Your task to perform on an android device: Open Chrome and go to settings Image 0: 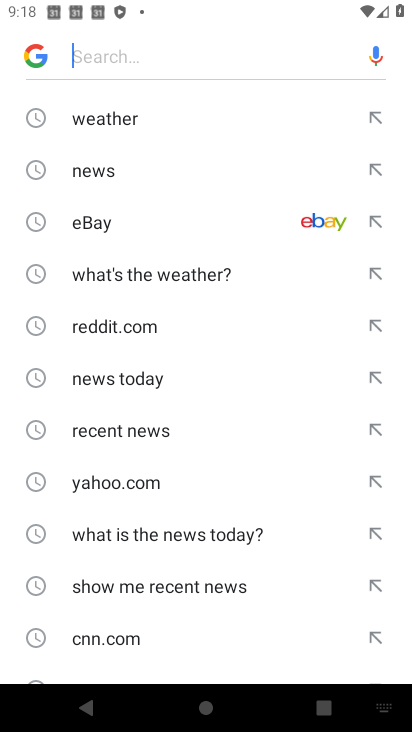
Step 0: press home button
Your task to perform on an android device: Open Chrome and go to settings Image 1: 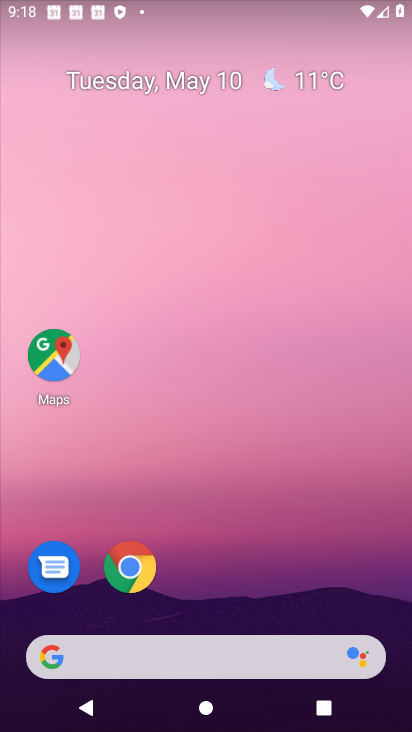
Step 1: click (138, 572)
Your task to perform on an android device: Open Chrome and go to settings Image 2: 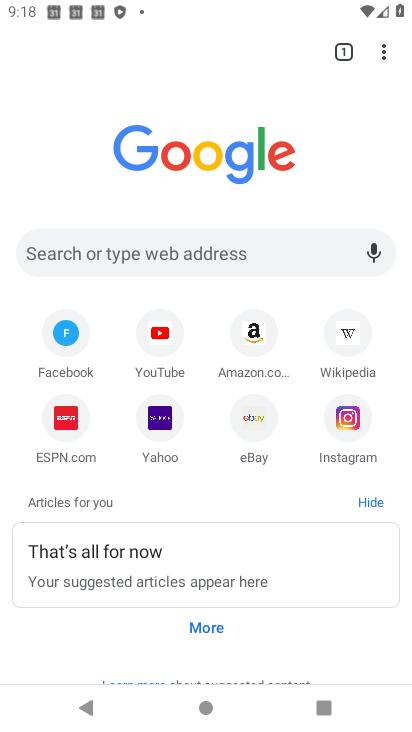
Step 2: click (382, 51)
Your task to perform on an android device: Open Chrome and go to settings Image 3: 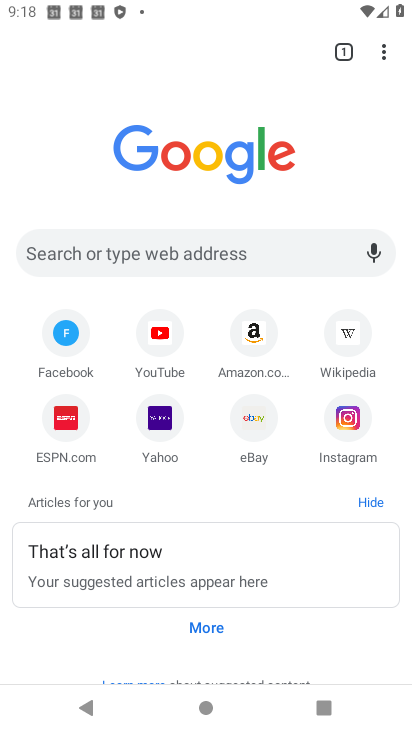
Step 3: click (381, 53)
Your task to perform on an android device: Open Chrome and go to settings Image 4: 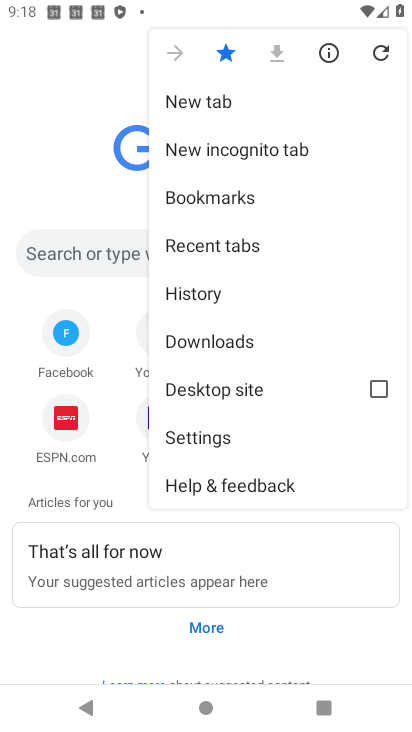
Step 4: click (207, 434)
Your task to perform on an android device: Open Chrome and go to settings Image 5: 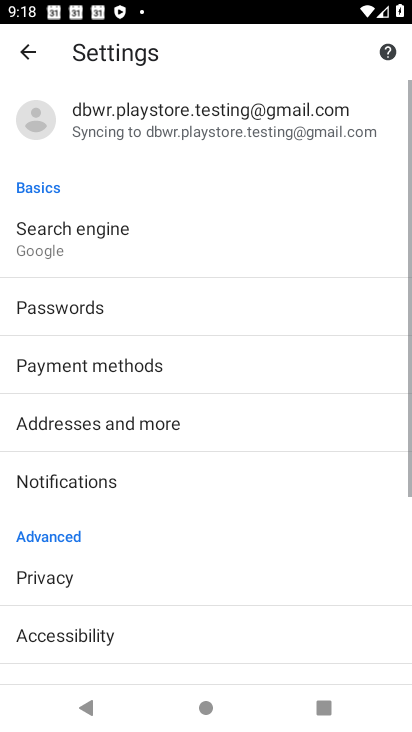
Step 5: task complete